Your task to perform on an android device: Open Maps and search for coffee Image 0: 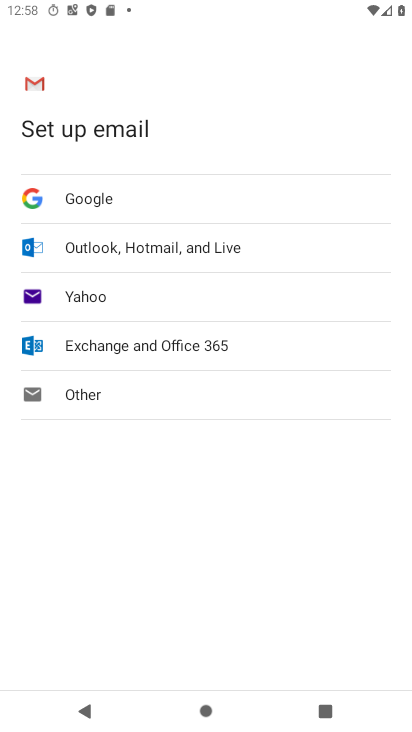
Step 0: press home button
Your task to perform on an android device: Open Maps and search for coffee Image 1: 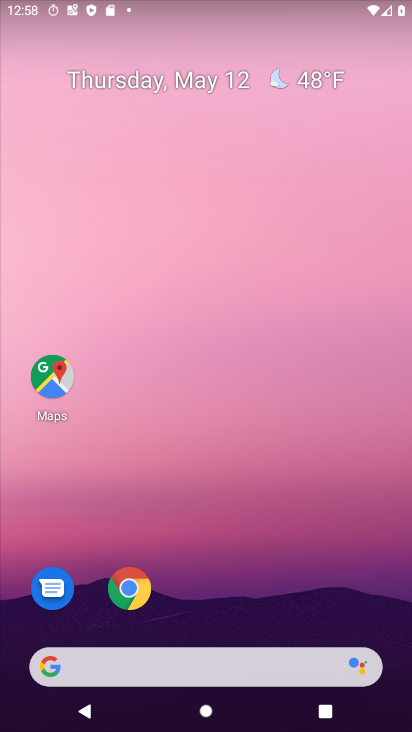
Step 1: click (60, 388)
Your task to perform on an android device: Open Maps and search for coffee Image 2: 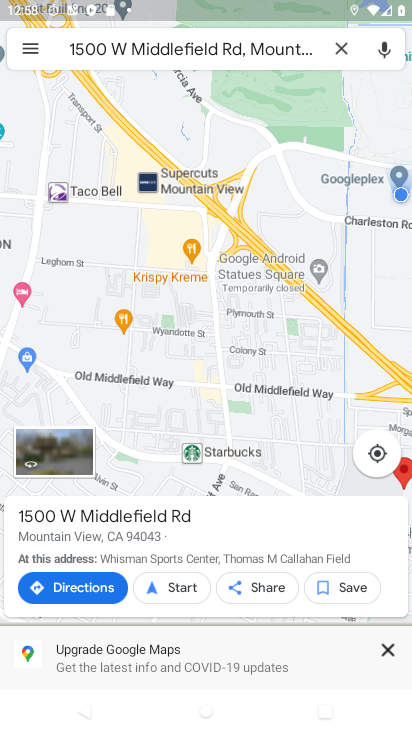
Step 2: click (337, 46)
Your task to perform on an android device: Open Maps and search for coffee Image 3: 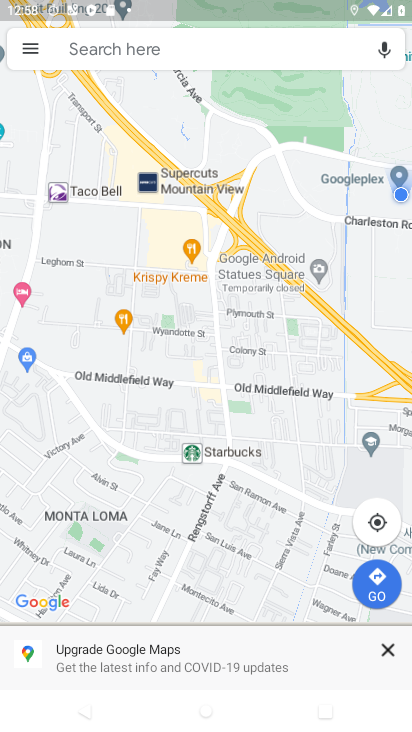
Step 3: click (225, 51)
Your task to perform on an android device: Open Maps and search for coffee Image 4: 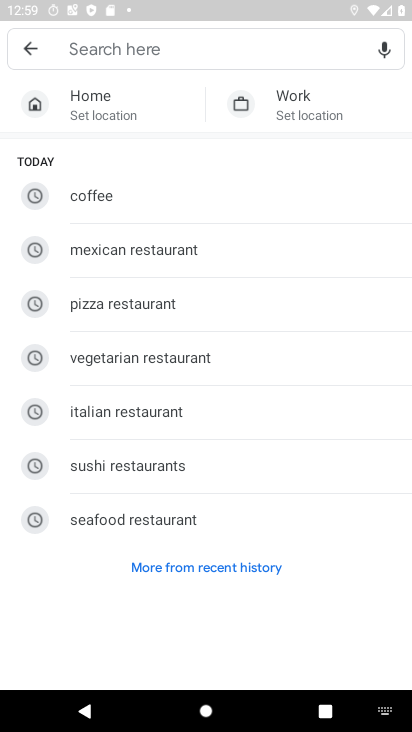
Step 4: click (165, 205)
Your task to perform on an android device: Open Maps and search for coffee Image 5: 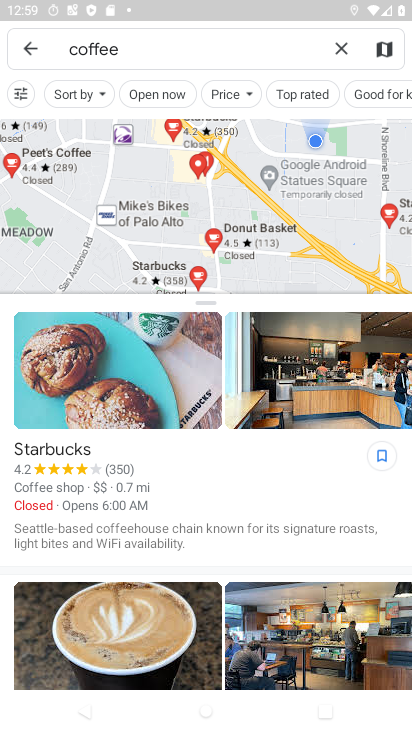
Step 5: task complete